Your task to perform on an android device: Go to privacy settings Image 0: 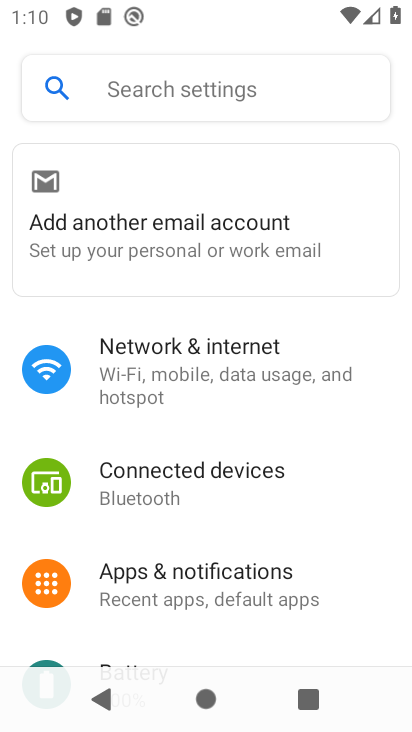
Step 0: drag from (299, 553) to (162, 15)
Your task to perform on an android device: Go to privacy settings Image 1: 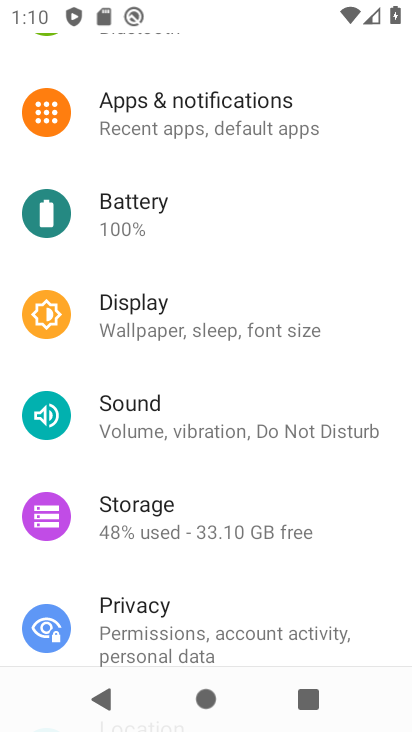
Step 1: click (234, 629)
Your task to perform on an android device: Go to privacy settings Image 2: 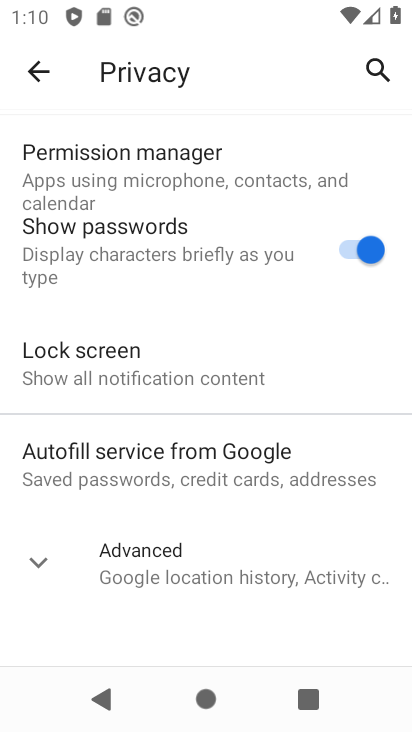
Step 2: task complete